Your task to perform on an android device: toggle notifications settings in the gmail app Image 0: 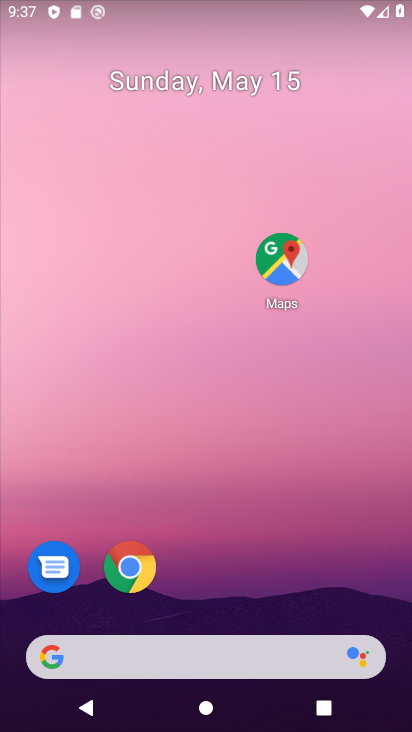
Step 0: drag from (246, 552) to (257, 113)
Your task to perform on an android device: toggle notifications settings in the gmail app Image 1: 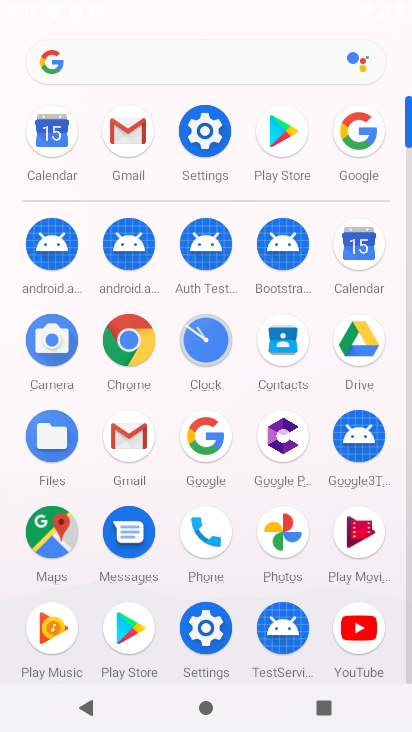
Step 1: click (128, 136)
Your task to perform on an android device: toggle notifications settings in the gmail app Image 2: 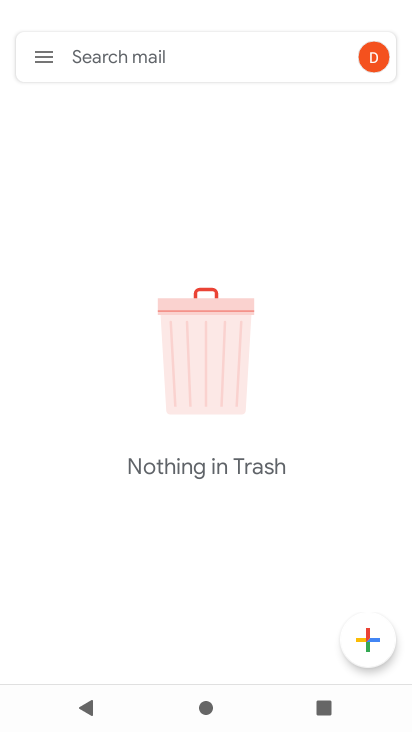
Step 2: click (47, 59)
Your task to perform on an android device: toggle notifications settings in the gmail app Image 3: 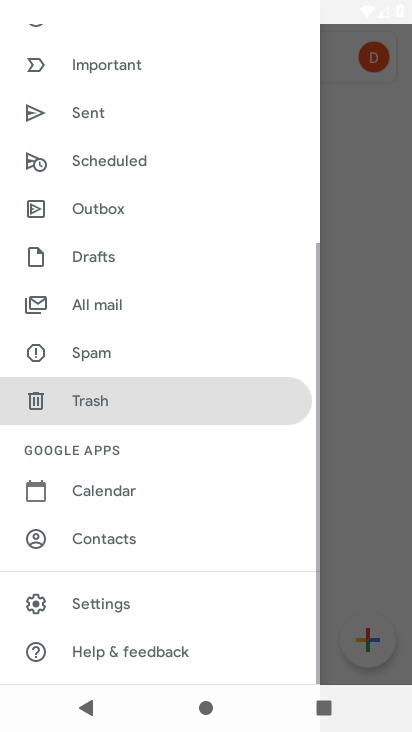
Step 3: click (133, 604)
Your task to perform on an android device: toggle notifications settings in the gmail app Image 4: 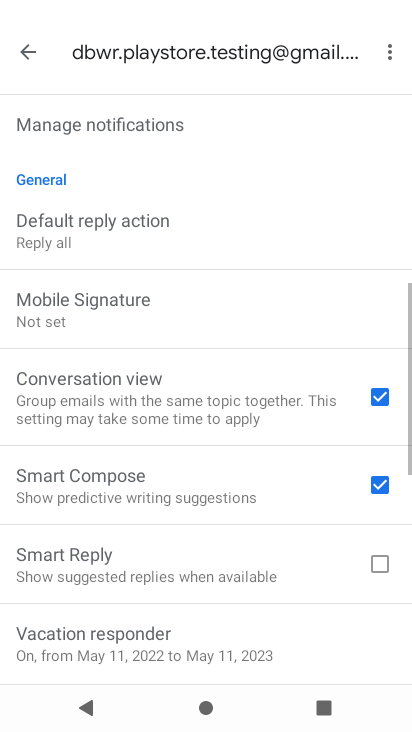
Step 4: drag from (162, 410) to (176, 711)
Your task to perform on an android device: toggle notifications settings in the gmail app Image 5: 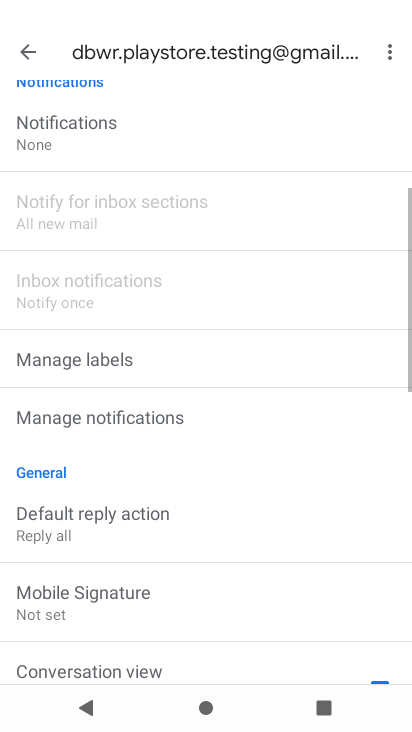
Step 5: drag from (121, 168) to (146, 415)
Your task to perform on an android device: toggle notifications settings in the gmail app Image 6: 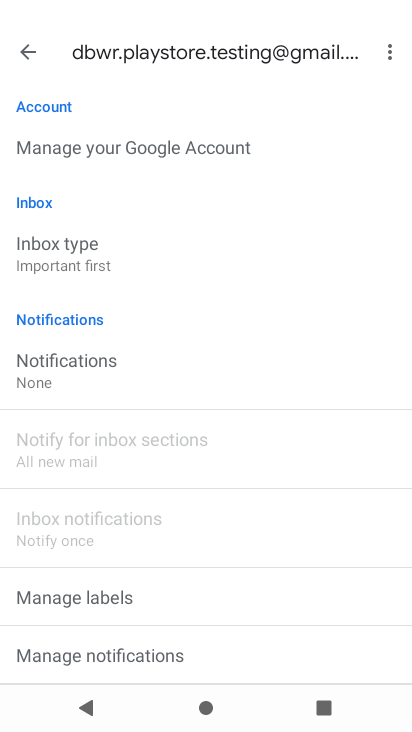
Step 6: click (65, 368)
Your task to perform on an android device: toggle notifications settings in the gmail app Image 7: 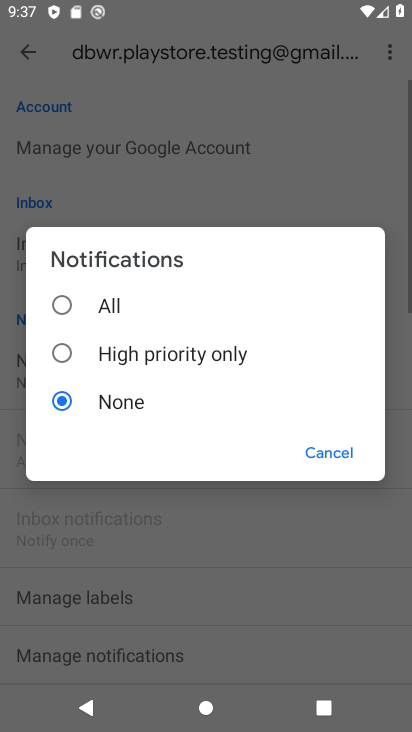
Step 7: click (55, 306)
Your task to perform on an android device: toggle notifications settings in the gmail app Image 8: 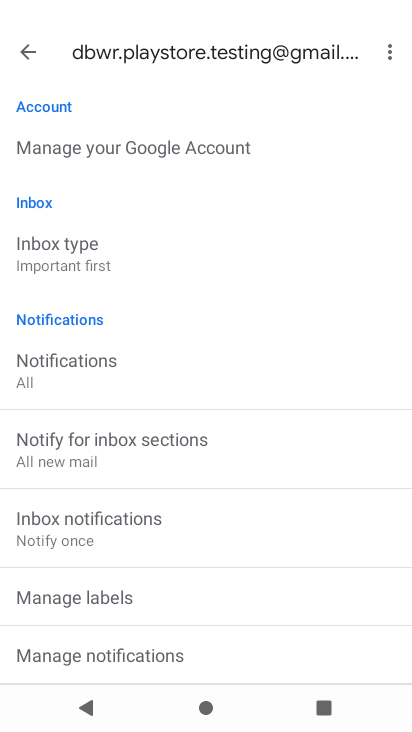
Step 8: task complete